Your task to perform on an android device: set default search engine in the chrome app Image 0: 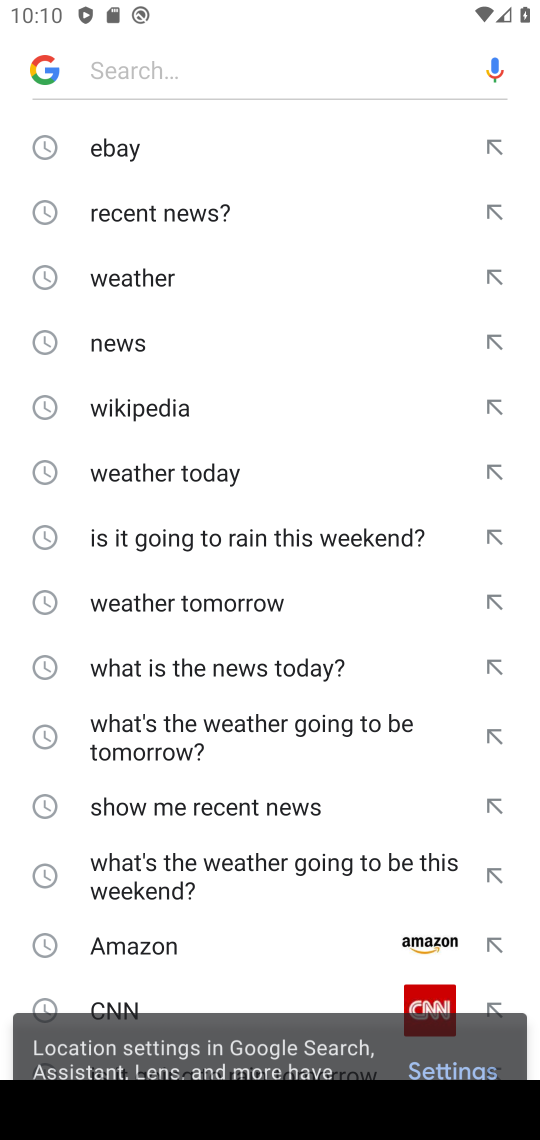
Step 0: press home button
Your task to perform on an android device: set default search engine in the chrome app Image 1: 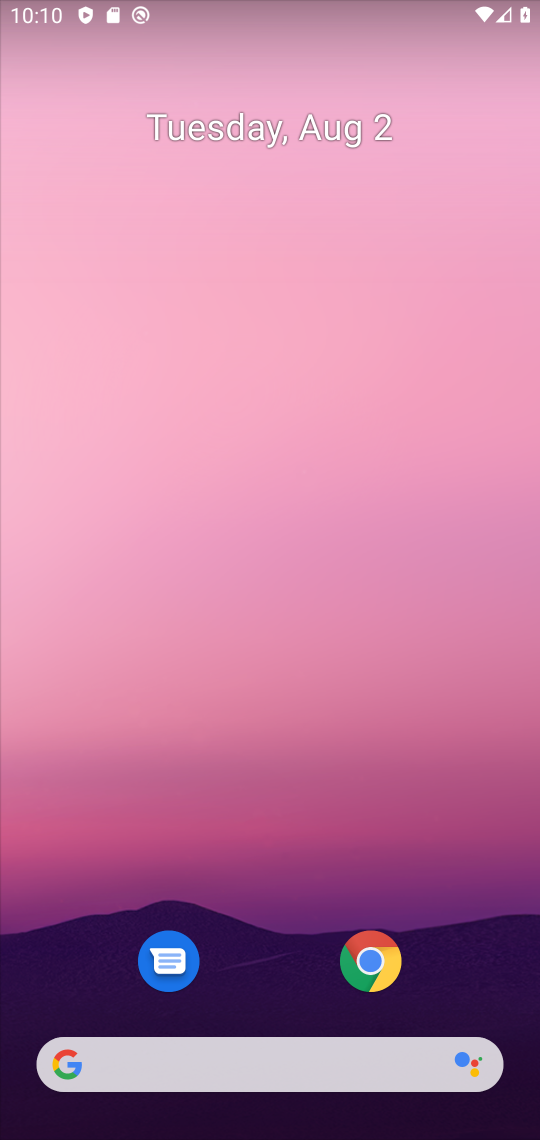
Step 1: click (372, 958)
Your task to perform on an android device: set default search engine in the chrome app Image 2: 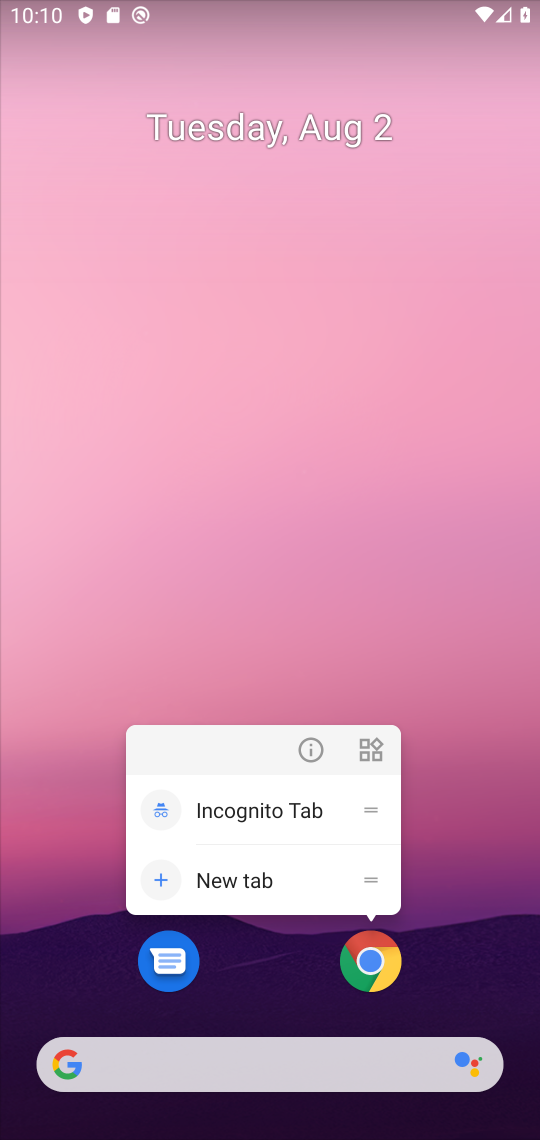
Step 2: click (371, 958)
Your task to perform on an android device: set default search engine in the chrome app Image 3: 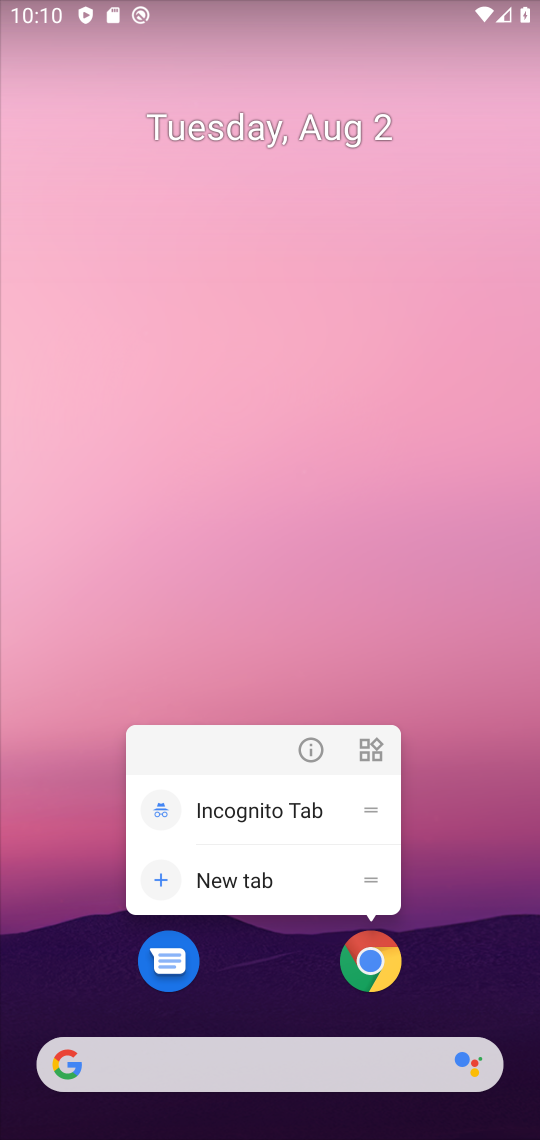
Step 3: click (369, 952)
Your task to perform on an android device: set default search engine in the chrome app Image 4: 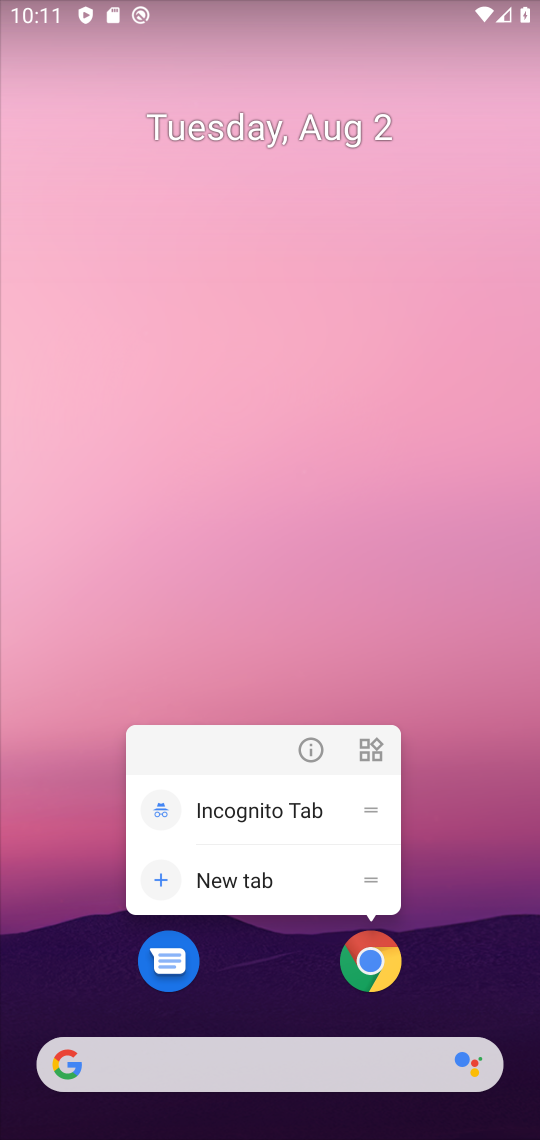
Step 4: click (360, 950)
Your task to perform on an android device: set default search engine in the chrome app Image 5: 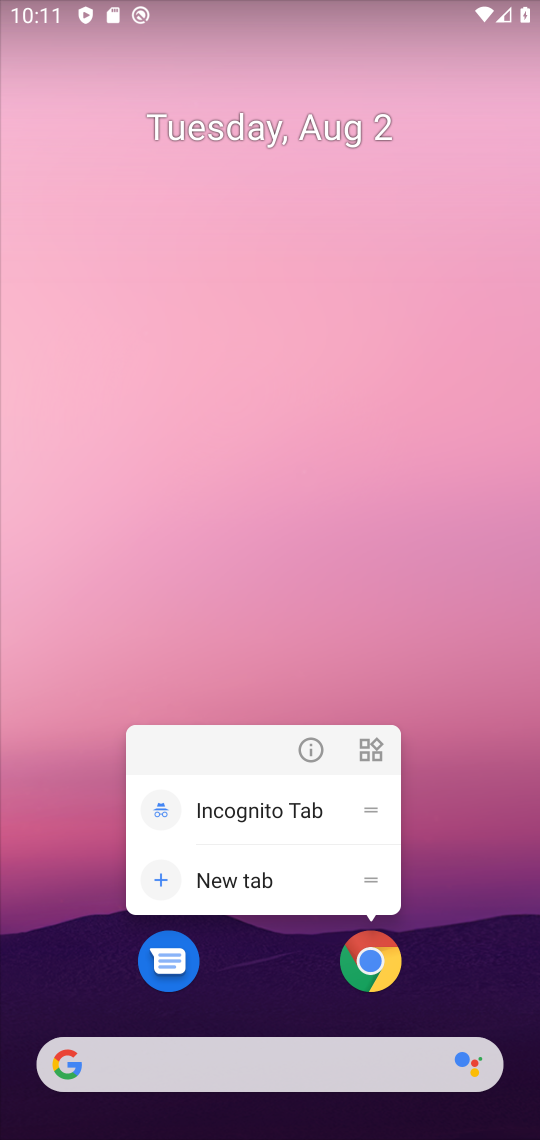
Step 5: click (364, 953)
Your task to perform on an android device: set default search engine in the chrome app Image 6: 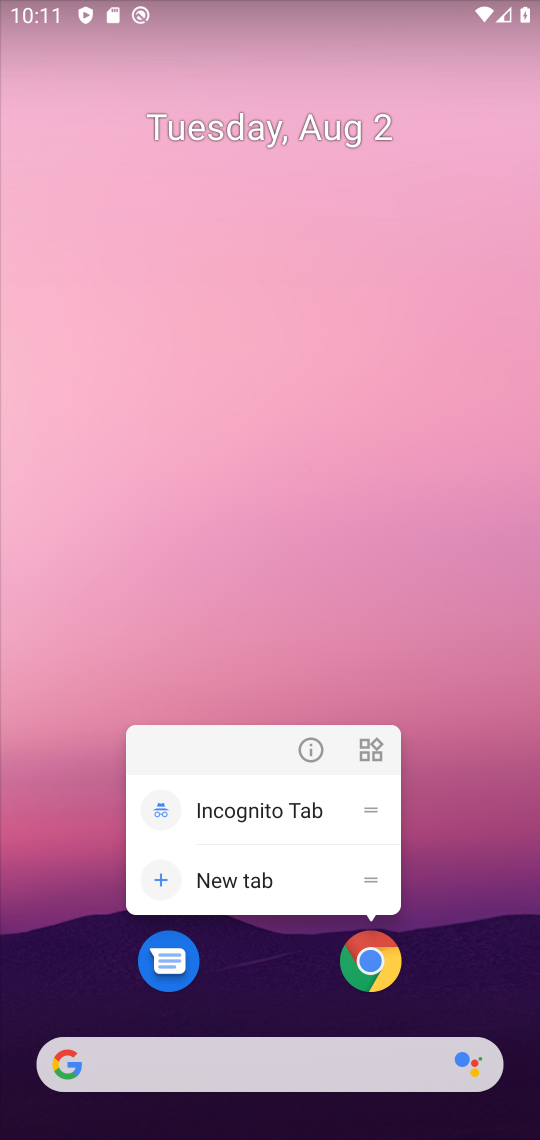
Step 6: click (372, 954)
Your task to perform on an android device: set default search engine in the chrome app Image 7: 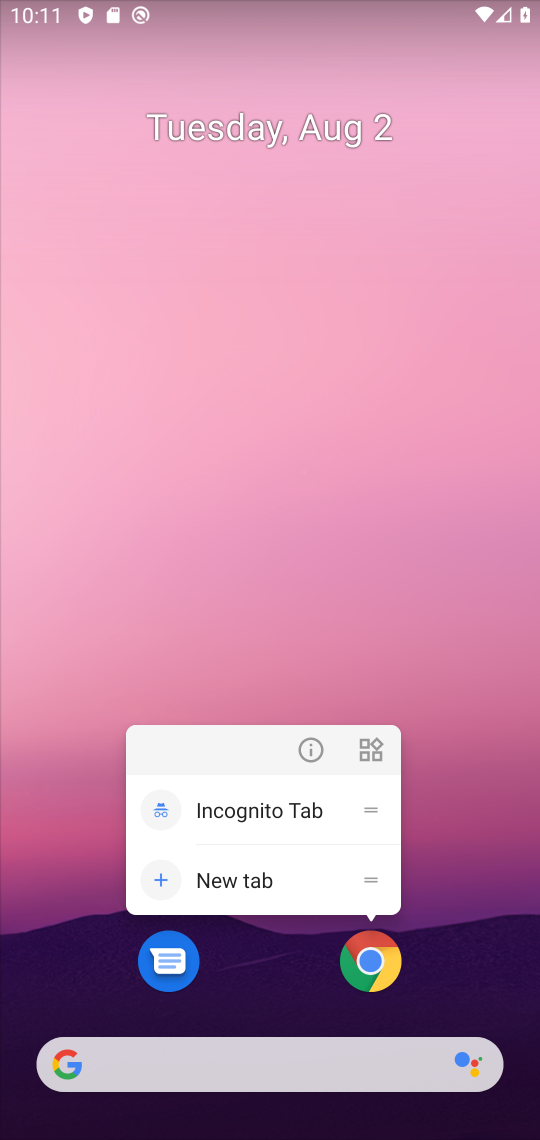
Step 7: click (368, 950)
Your task to perform on an android device: set default search engine in the chrome app Image 8: 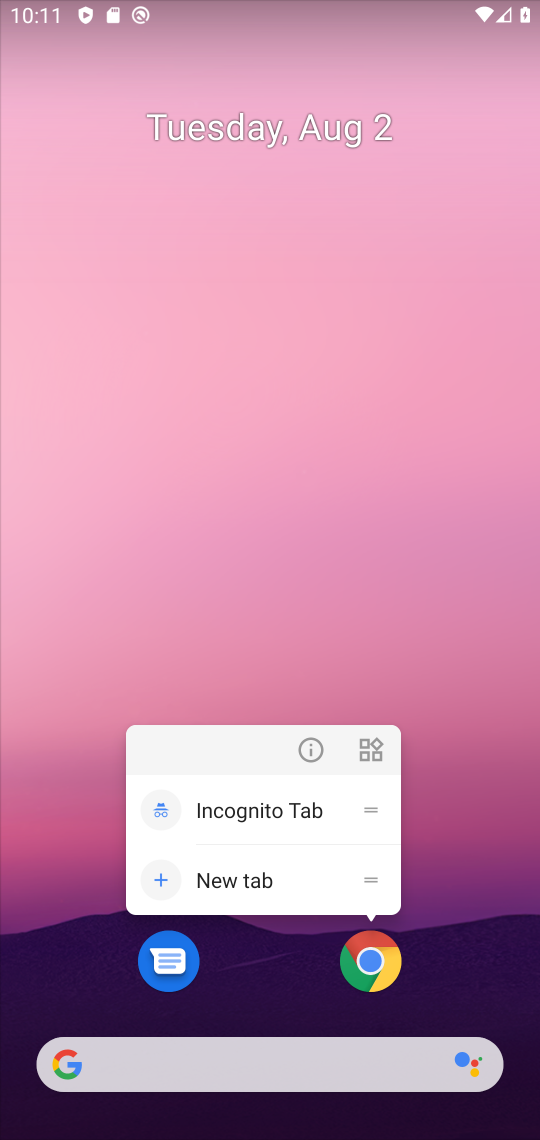
Step 8: click (368, 950)
Your task to perform on an android device: set default search engine in the chrome app Image 9: 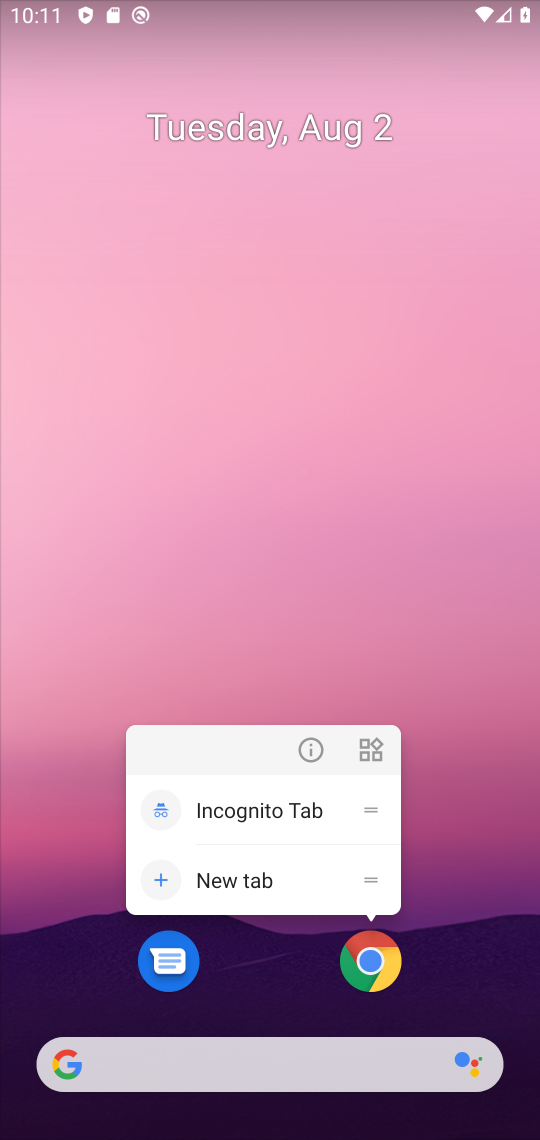
Step 9: drag from (476, 979) to (461, 106)
Your task to perform on an android device: set default search engine in the chrome app Image 10: 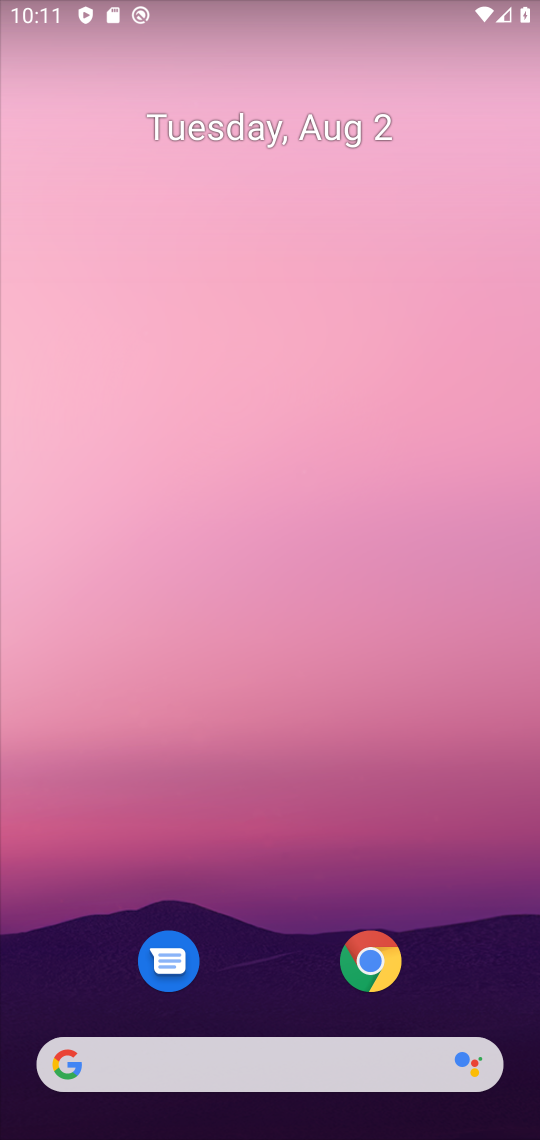
Step 10: drag from (294, 997) to (285, 96)
Your task to perform on an android device: set default search engine in the chrome app Image 11: 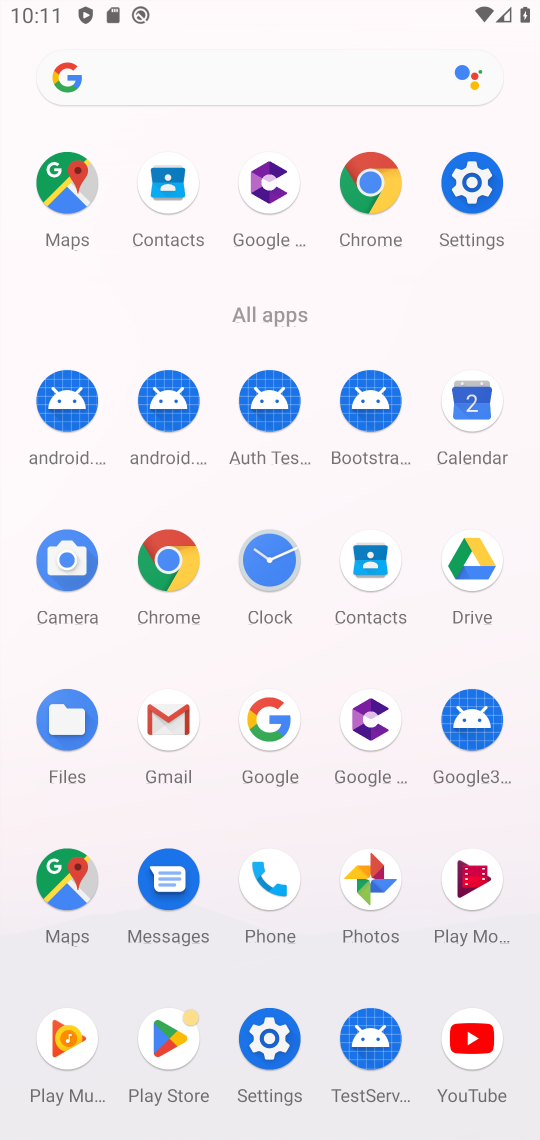
Step 11: click (365, 174)
Your task to perform on an android device: set default search engine in the chrome app Image 12: 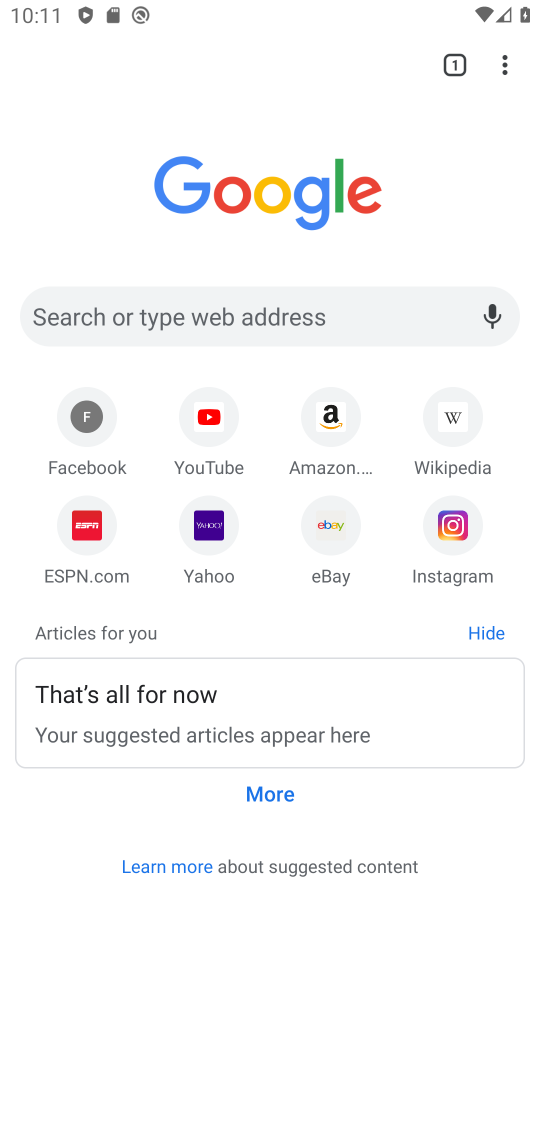
Step 12: click (506, 61)
Your task to perform on an android device: set default search engine in the chrome app Image 13: 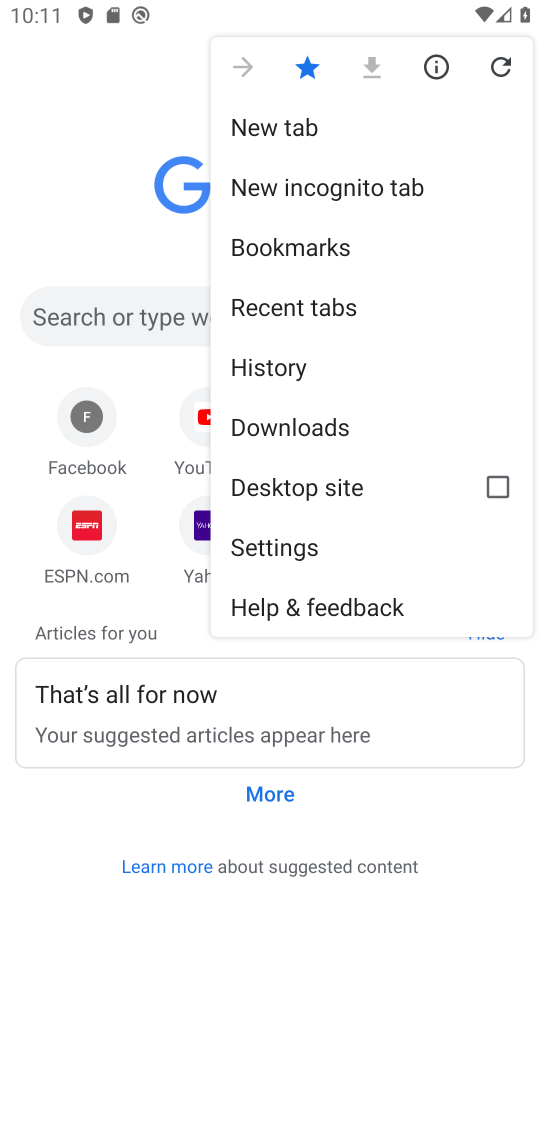
Step 13: click (326, 543)
Your task to perform on an android device: set default search engine in the chrome app Image 14: 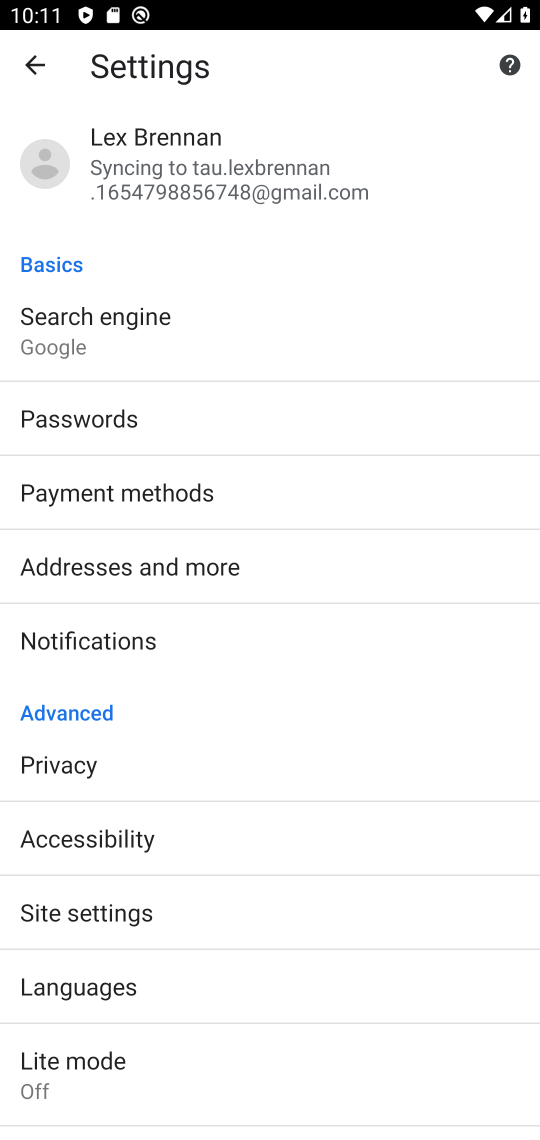
Step 14: click (129, 343)
Your task to perform on an android device: set default search engine in the chrome app Image 15: 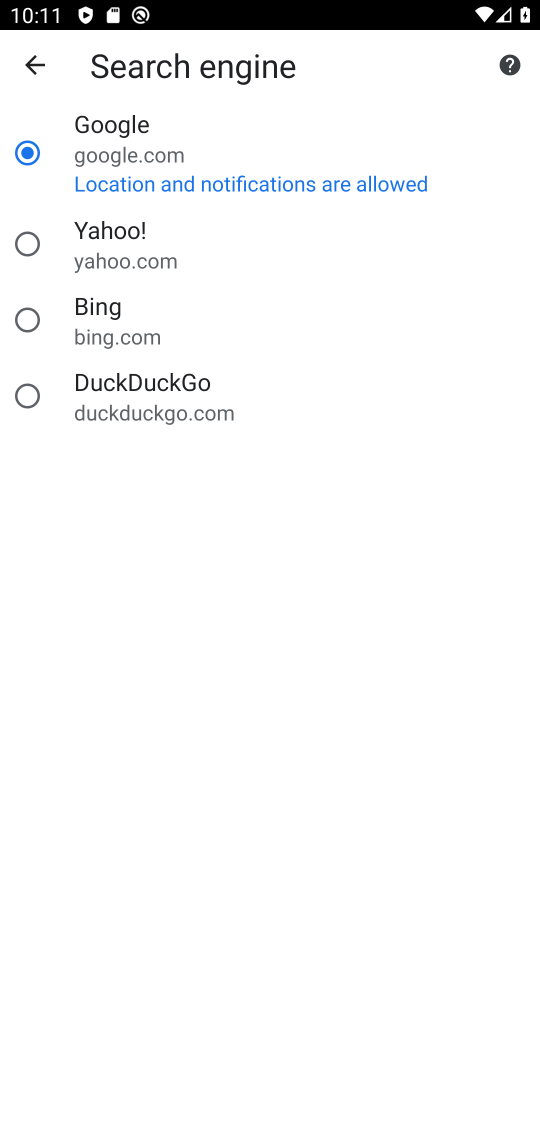
Step 15: click (19, 311)
Your task to perform on an android device: set default search engine in the chrome app Image 16: 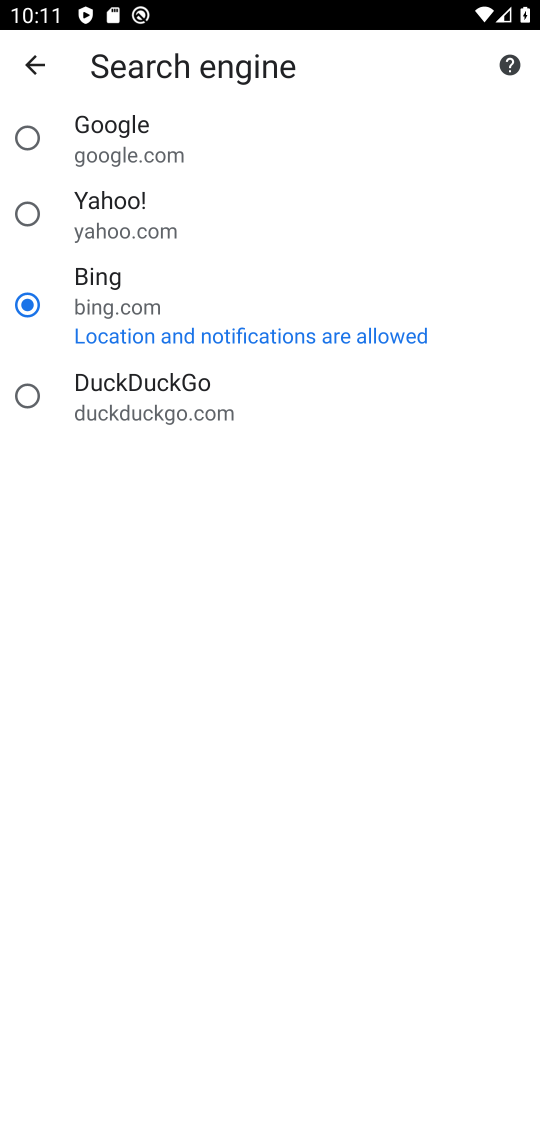
Step 16: task complete